Your task to perform on an android device: delete a single message in the gmail app Image 0: 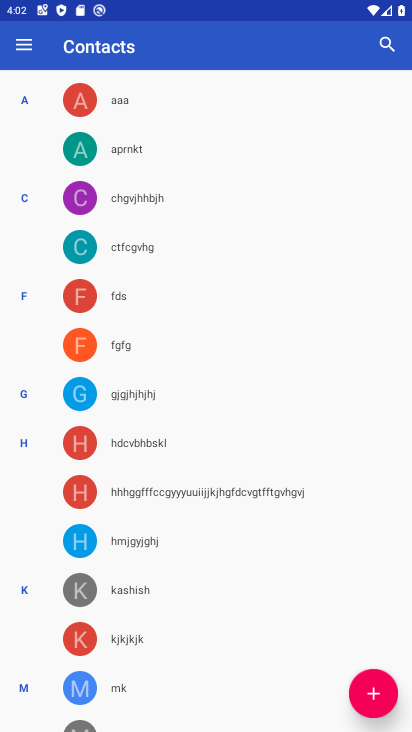
Step 0: press home button
Your task to perform on an android device: delete a single message in the gmail app Image 1: 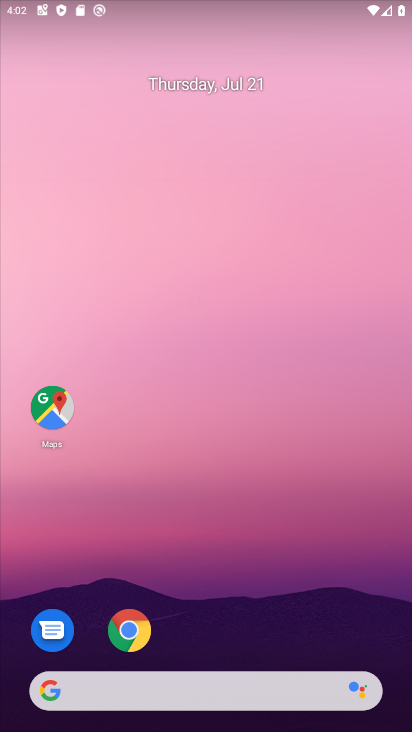
Step 1: drag from (16, 709) to (304, 187)
Your task to perform on an android device: delete a single message in the gmail app Image 2: 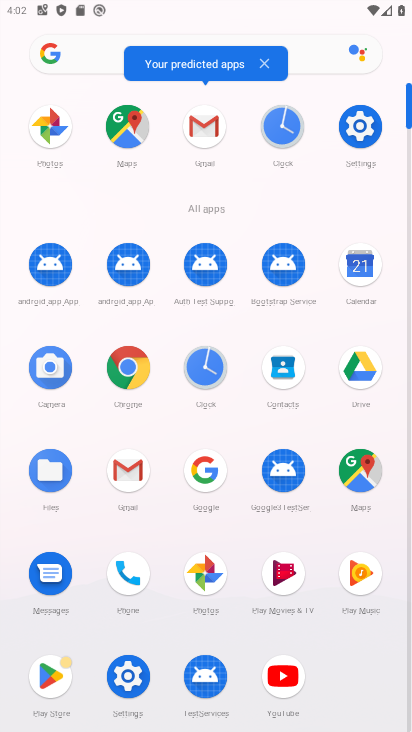
Step 2: click (130, 466)
Your task to perform on an android device: delete a single message in the gmail app Image 3: 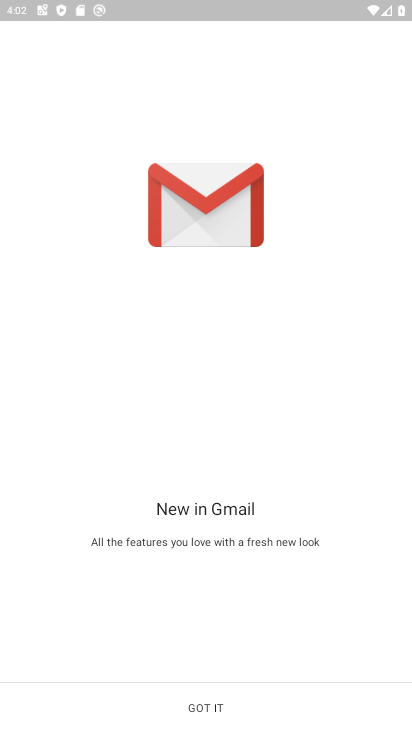
Step 3: click (208, 711)
Your task to perform on an android device: delete a single message in the gmail app Image 4: 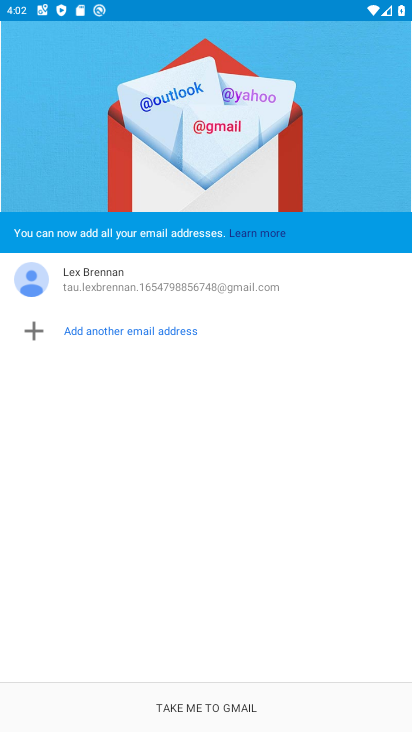
Step 4: click (165, 712)
Your task to perform on an android device: delete a single message in the gmail app Image 5: 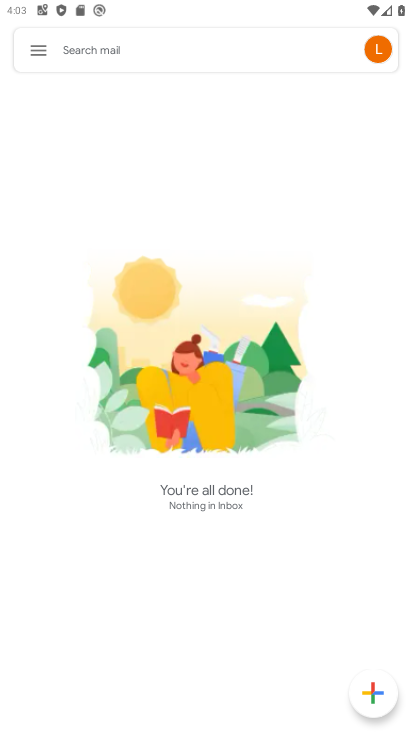
Step 5: click (32, 48)
Your task to perform on an android device: delete a single message in the gmail app Image 6: 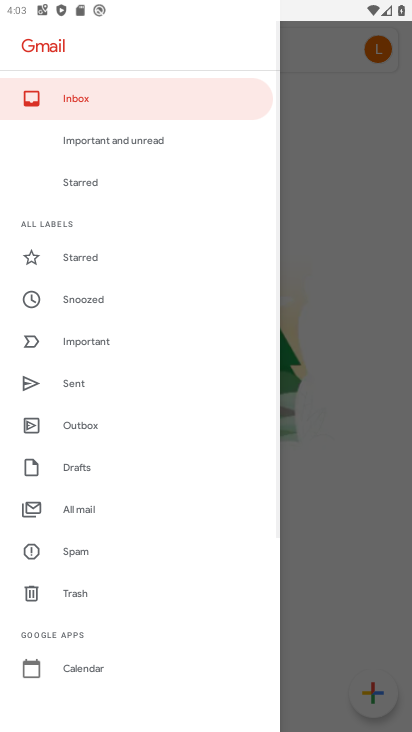
Step 6: click (110, 94)
Your task to perform on an android device: delete a single message in the gmail app Image 7: 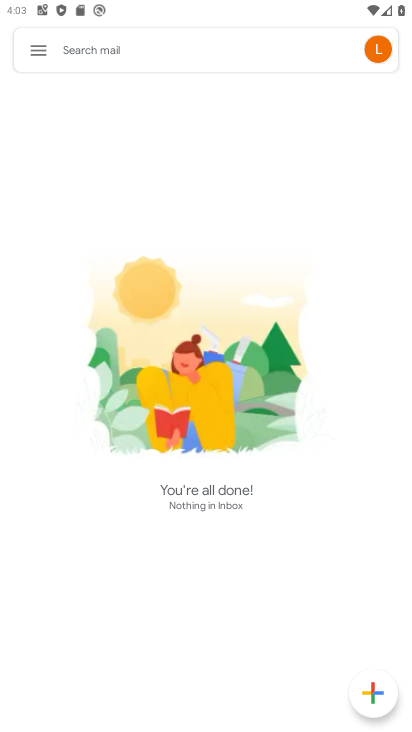
Step 7: task complete